Your task to perform on an android device: toggle javascript in the chrome app Image 0: 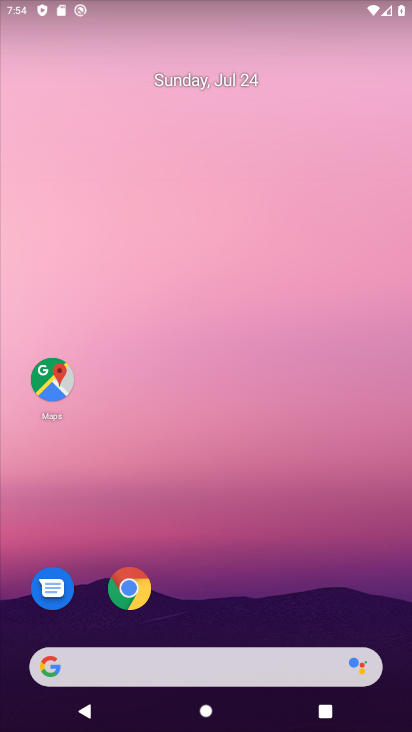
Step 0: click (132, 589)
Your task to perform on an android device: toggle javascript in the chrome app Image 1: 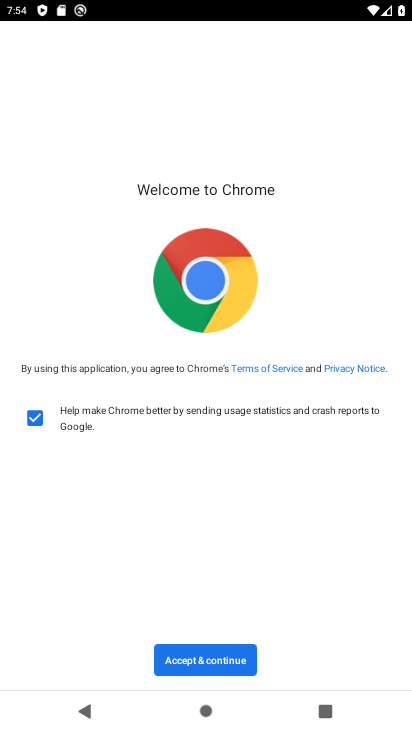
Step 1: click (193, 664)
Your task to perform on an android device: toggle javascript in the chrome app Image 2: 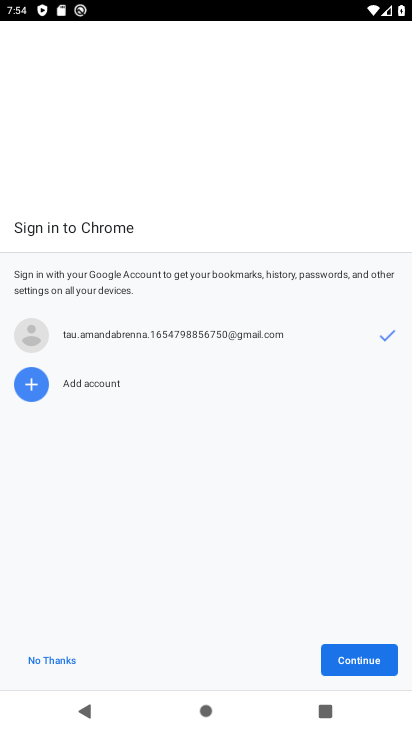
Step 2: click (360, 664)
Your task to perform on an android device: toggle javascript in the chrome app Image 3: 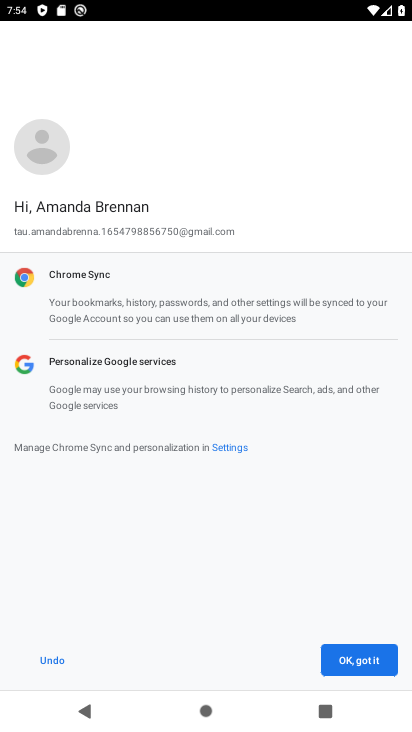
Step 3: click (360, 664)
Your task to perform on an android device: toggle javascript in the chrome app Image 4: 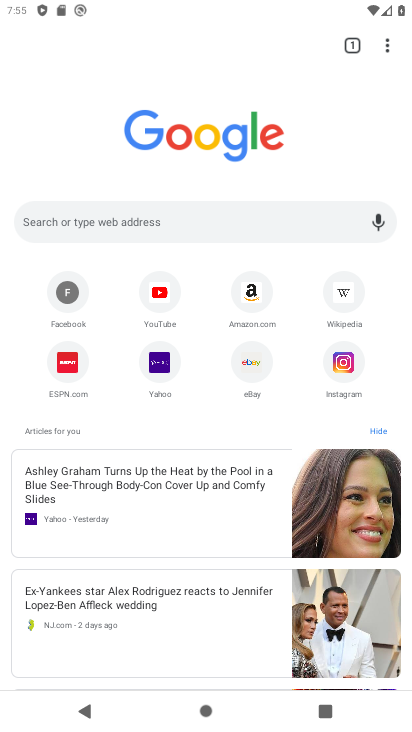
Step 4: click (387, 42)
Your task to perform on an android device: toggle javascript in the chrome app Image 5: 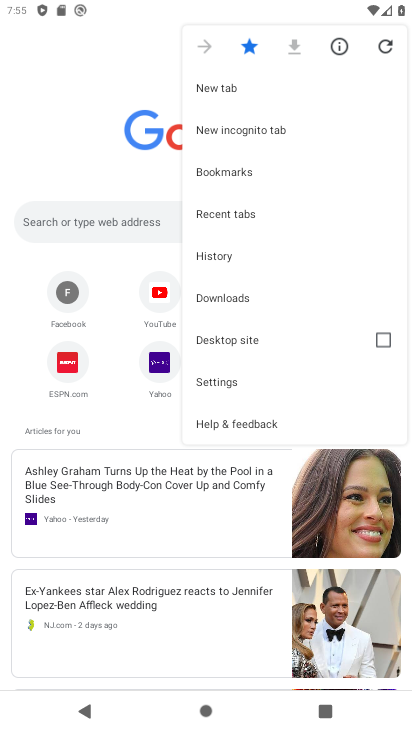
Step 5: click (257, 381)
Your task to perform on an android device: toggle javascript in the chrome app Image 6: 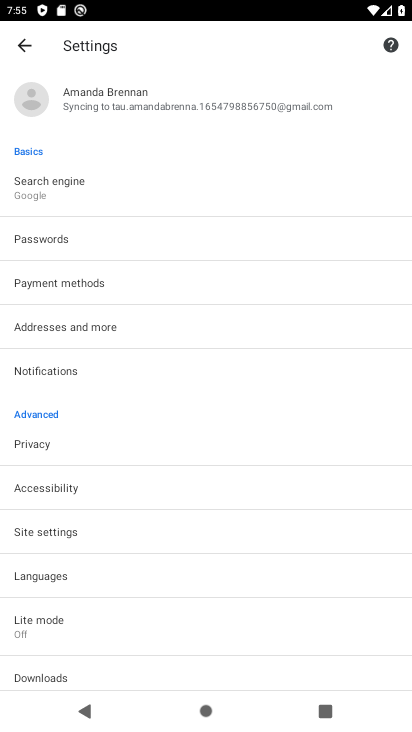
Step 6: click (126, 532)
Your task to perform on an android device: toggle javascript in the chrome app Image 7: 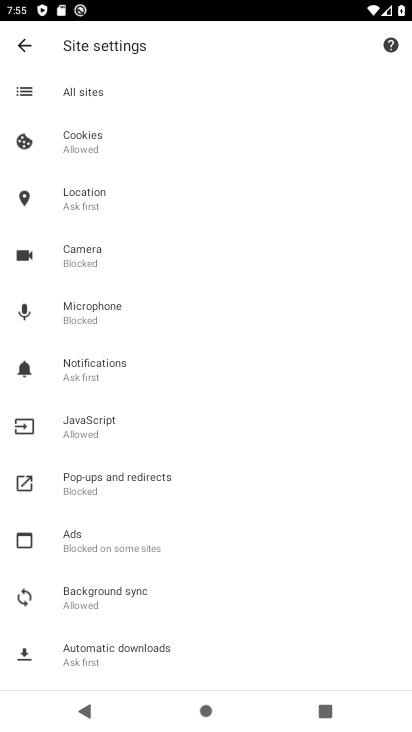
Step 7: click (161, 429)
Your task to perform on an android device: toggle javascript in the chrome app Image 8: 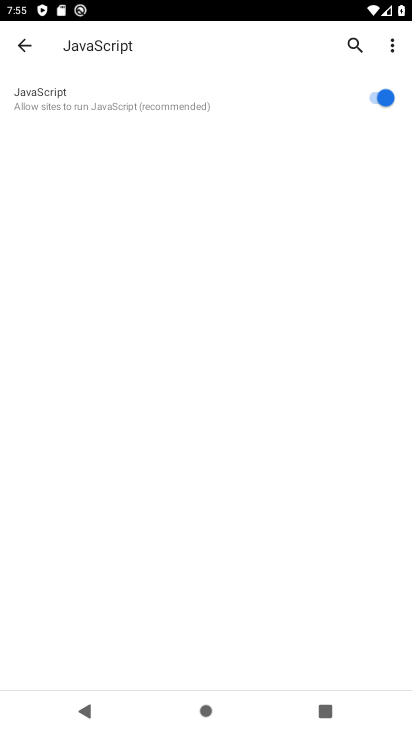
Step 8: click (377, 84)
Your task to perform on an android device: toggle javascript in the chrome app Image 9: 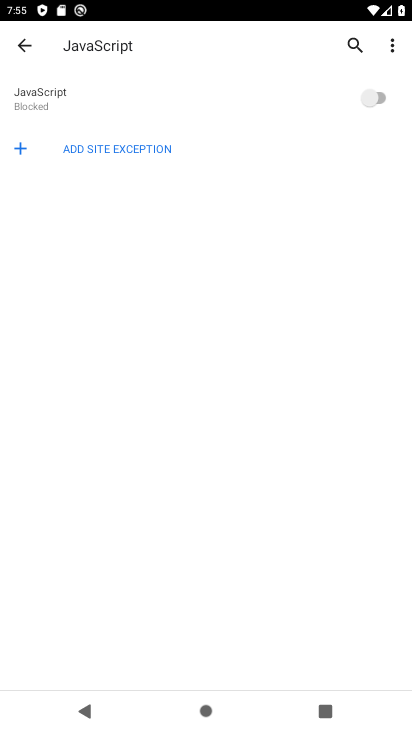
Step 9: task complete